Your task to perform on an android device: Open the contacts app Image 0: 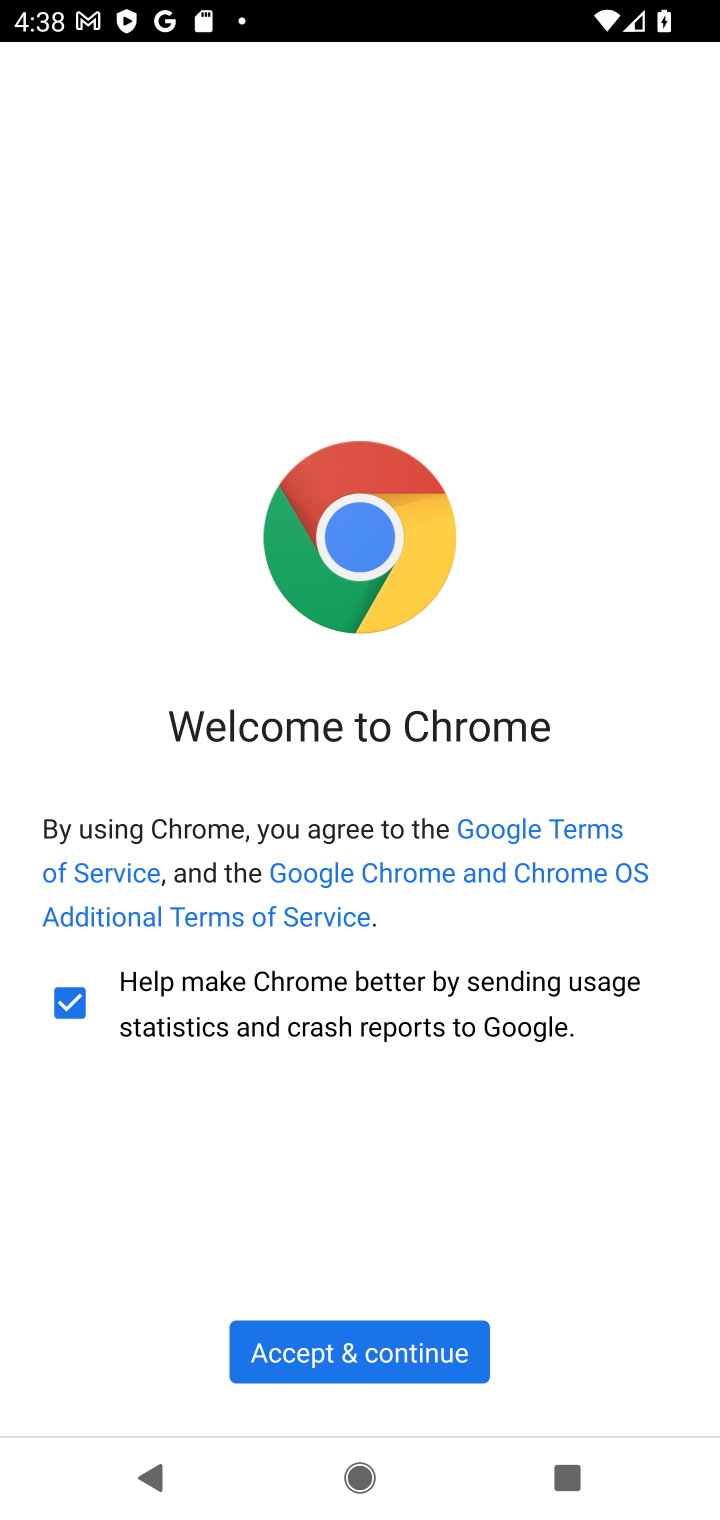
Step 0: press home button
Your task to perform on an android device: Open the contacts app Image 1: 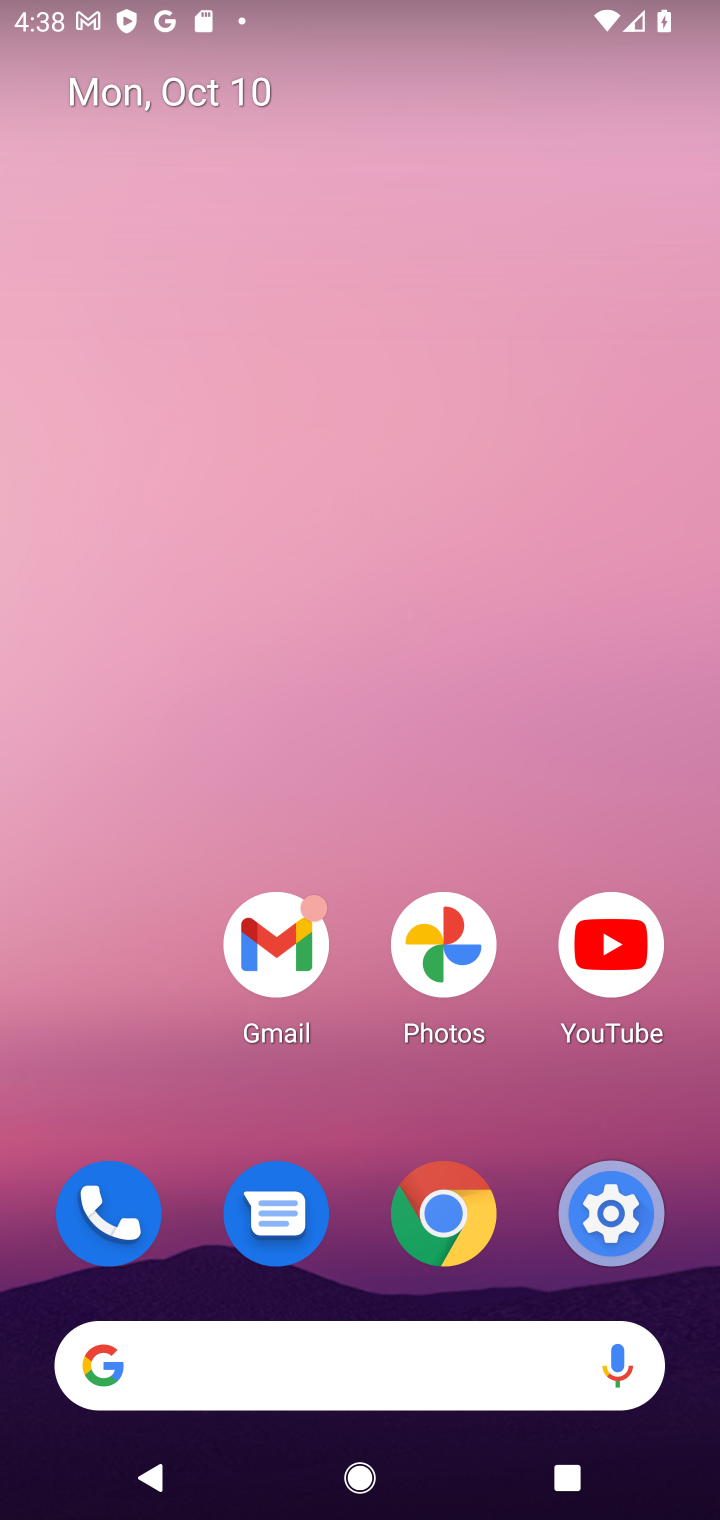
Step 1: drag from (375, 1051) to (443, 303)
Your task to perform on an android device: Open the contacts app Image 2: 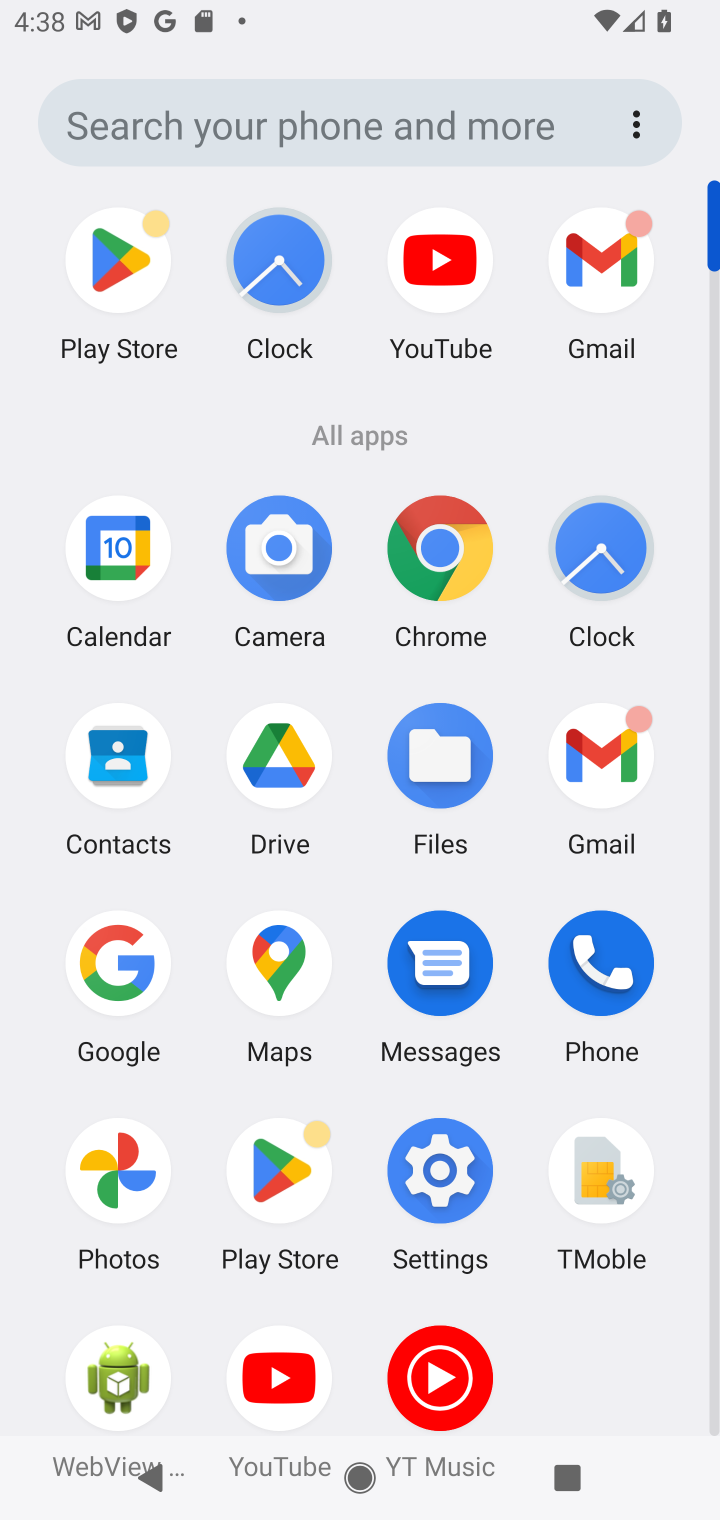
Step 2: click (115, 759)
Your task to perform on an android device: Open the contacts app Image 3: 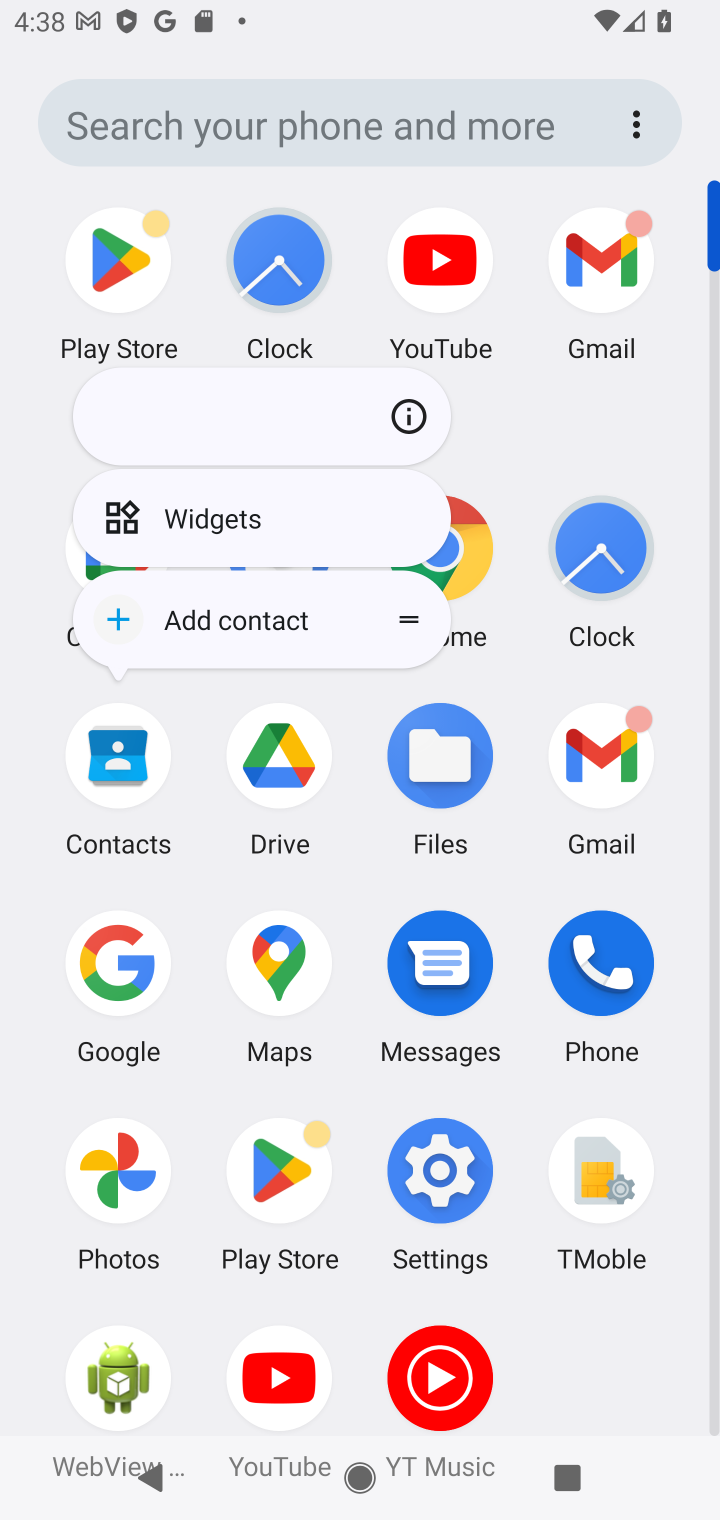
Step 3: click (157, 746)
Your task to perform on an android device: Open the contacts app Image 4: 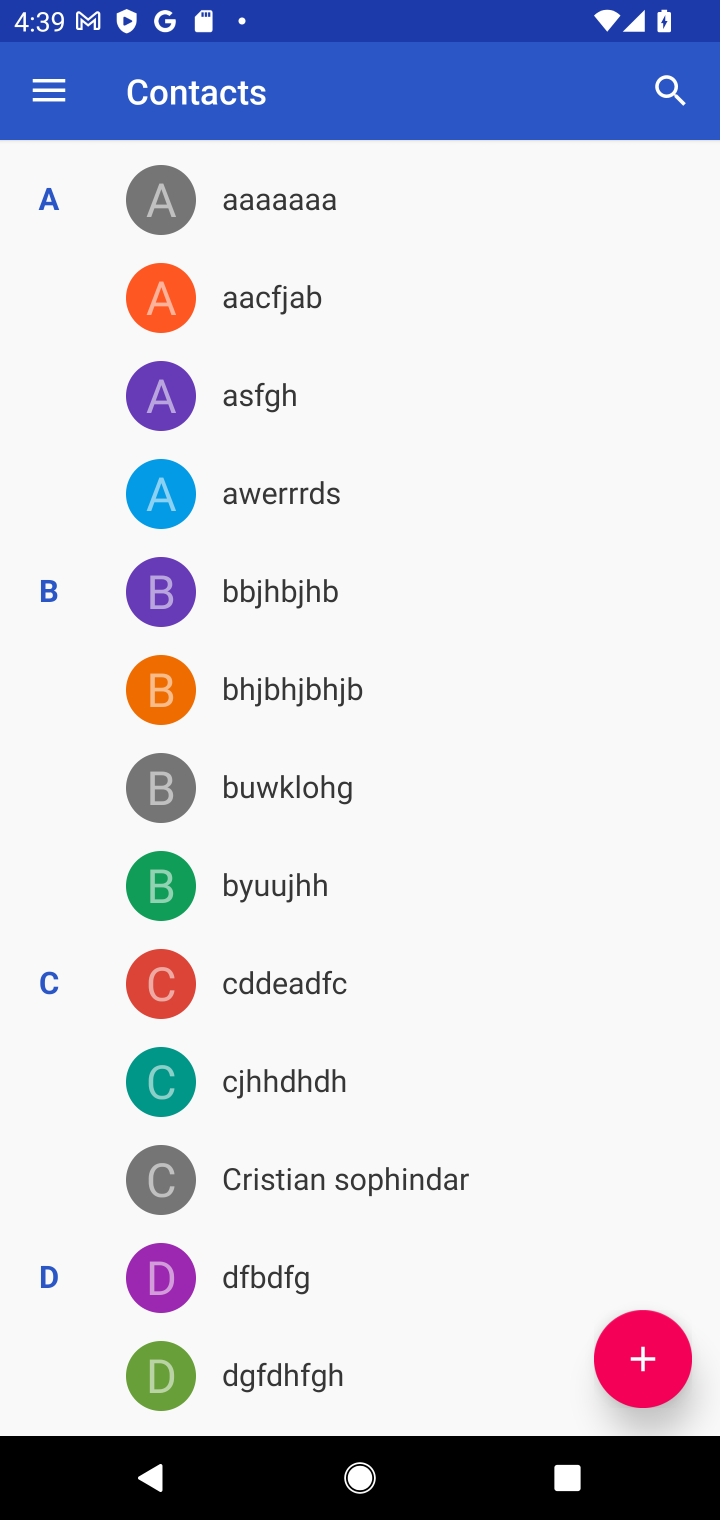
Step 4: task complete